Your task to perform on an android device: What's the weather going to be tomorrow? Image 0: 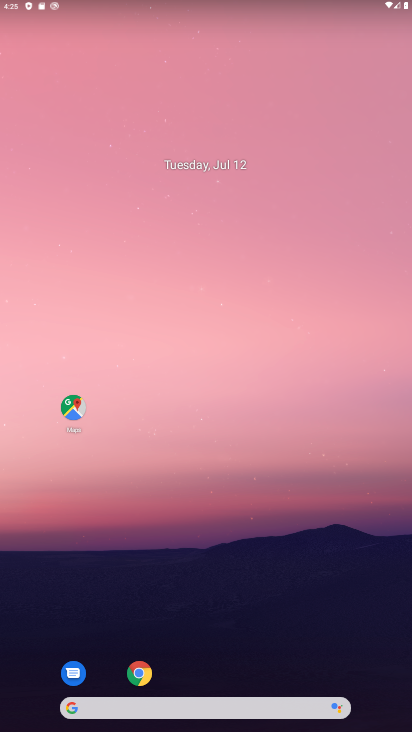
Step 0: drag from (199, 702) to (208, 13)
Your task to perform on an android device: What's the weather going to be tomorrow? Image 1: 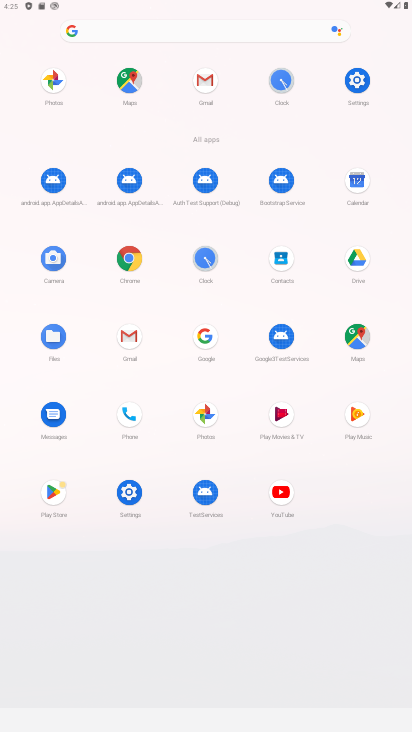
Step 1: click (204, 330)
Your task to perform on an android device: What's the weather going to be tomorrow? Image 2: 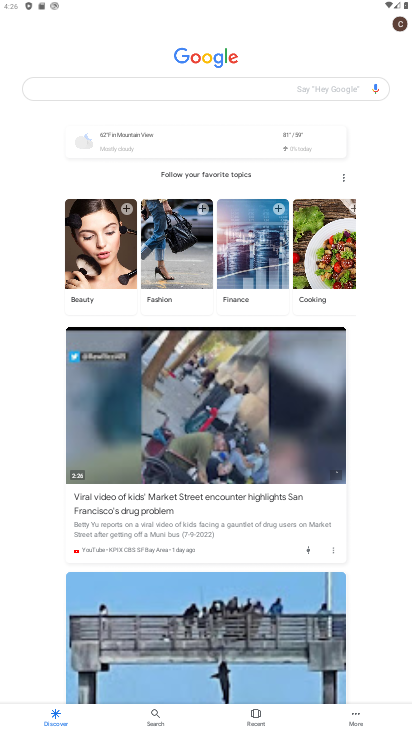
Step 2: click (138, 132)
Your task to perform on an android device: What's the weather going to be tomorrow? Image 3: 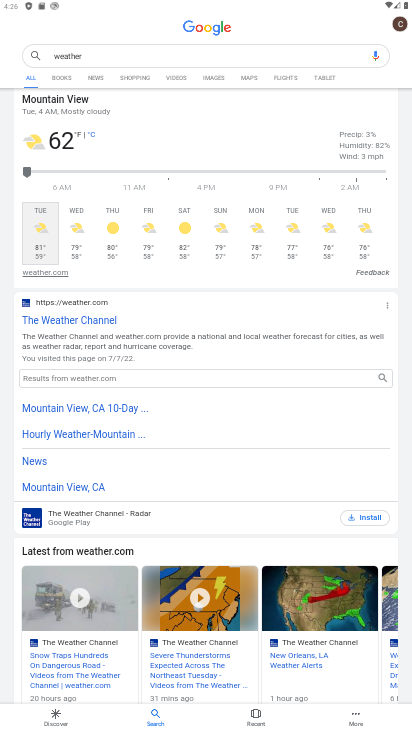
Step 3: click (55, 715)
Your task to perform on an android device: What's the weather going to be tomorrow? Image 4: 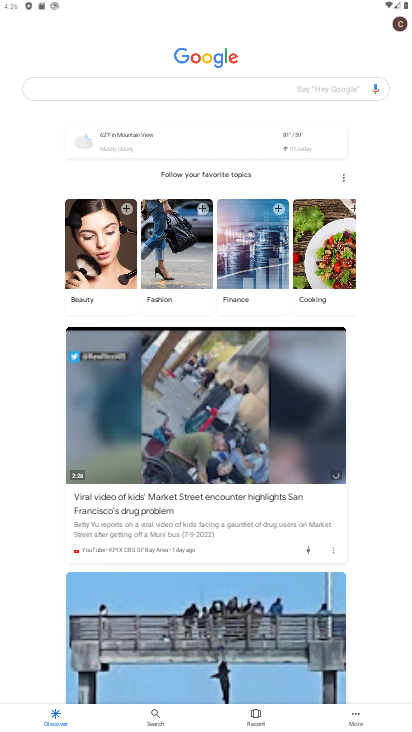
Step 4: click (55, 715)
Your task to perform on an android device: What's the weather going to be tomorrow? Image 5: 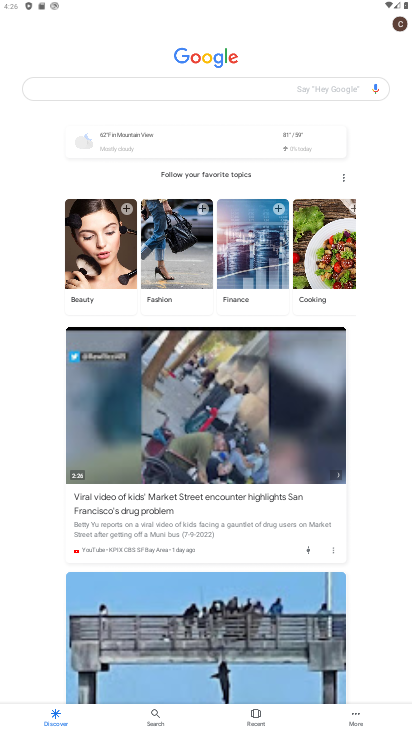
Step 5: click (43, 705)
Your task to perform on an android device: What's the weather going to be tomorrow? Image 6: 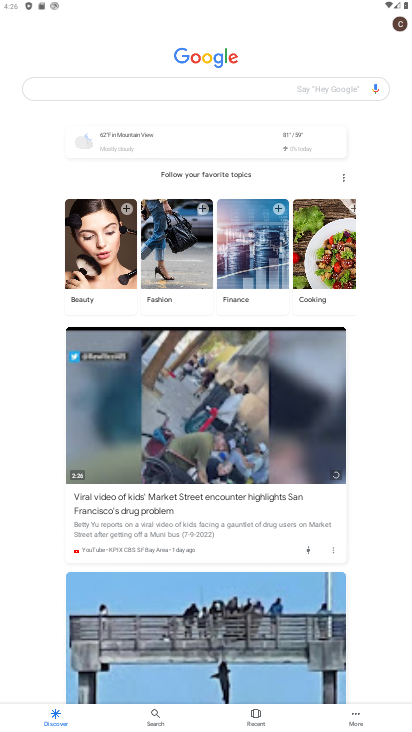
Step 6: click (102, 132)
Your task to perform on an android device: What's the weather going to be tomorrow? Image 7: 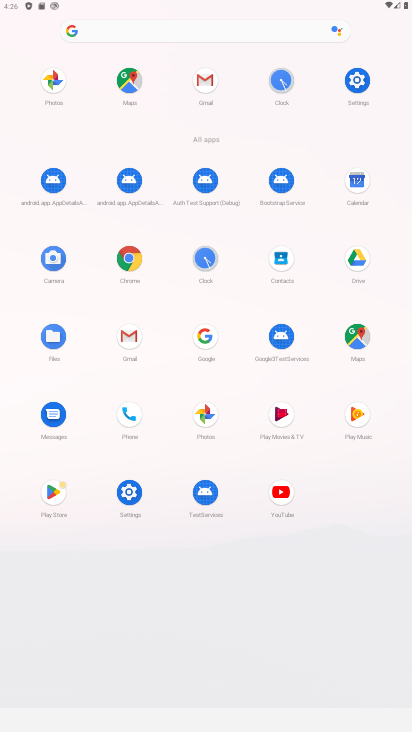
Step 7: task complete